Your task to perform on an android device: turn off wifi Image 0: 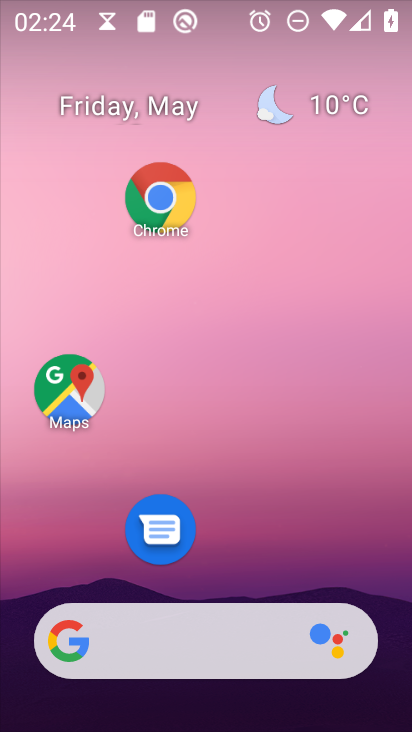
Step 0: drag from (249, 333) to (276, 218)
Your task to perform on an android device: turn off wifi Image 1: 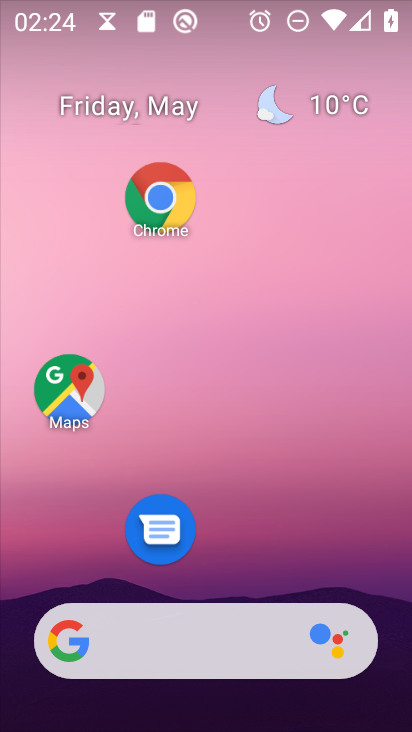
Step 1: drag from (192, 617) to (287, 210)
Your task to perform on an android device: turn off wifi Image 2: 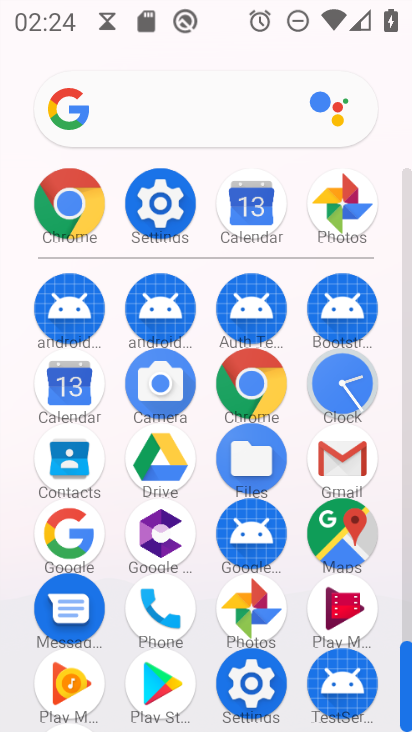
Step 2: click (151, 198)
Your task to perform on an android device: turn off wifi Image 3: 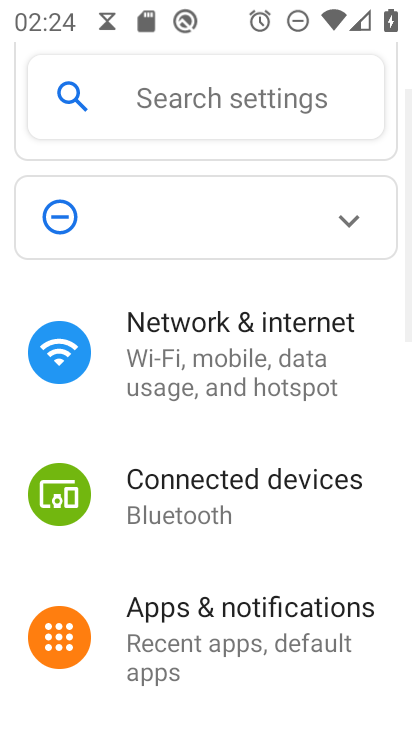
Step 3: drag from (237, 255) to (203, 554)
Your task to perform on an android device: turn off wifi Image 4: 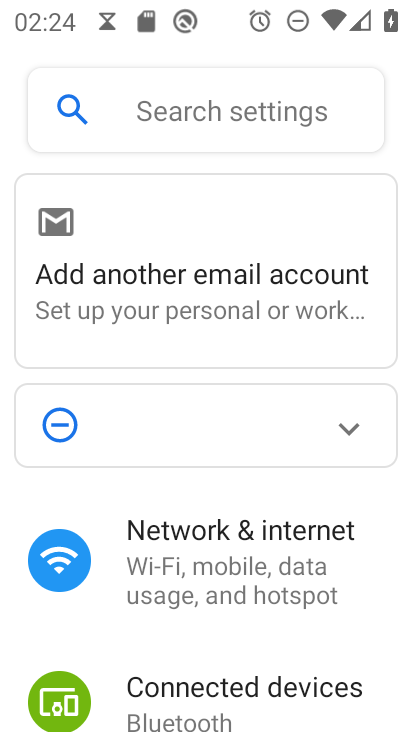
Step 4: click (163, 555)
Your task to perform on an android device: turn off wifi Image 5: 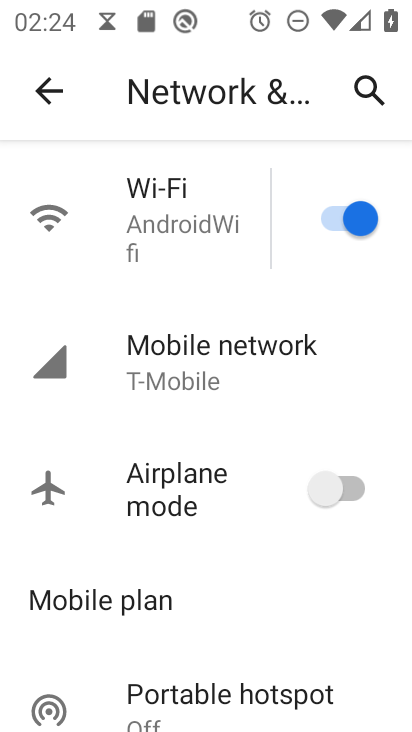
Step 5: click (342, 207)
Your task to perform on an android device: turn off wifi Image 6: 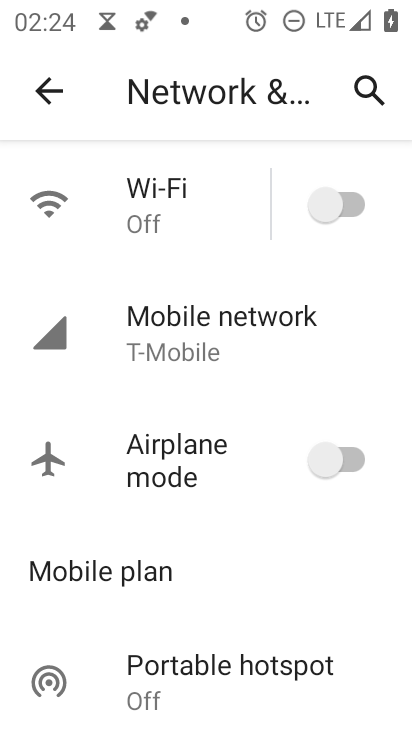
Step 6: task complete